Your task to perform on an android device: turn on translation in the chrome app Image 0: 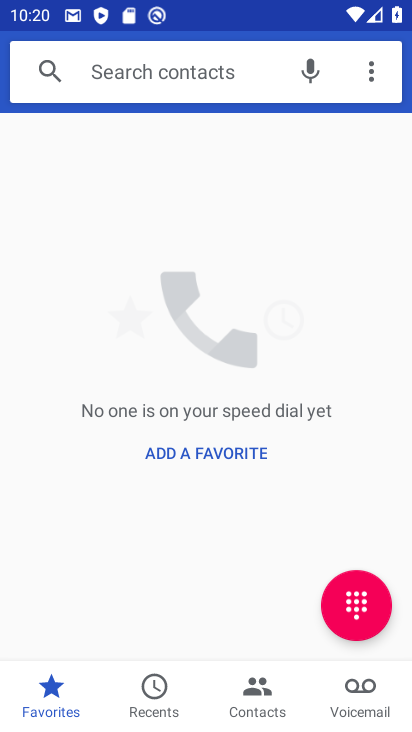
Step 0: press home button
Your task to perform on an android device: turn on translation in the chrome app Image 1: 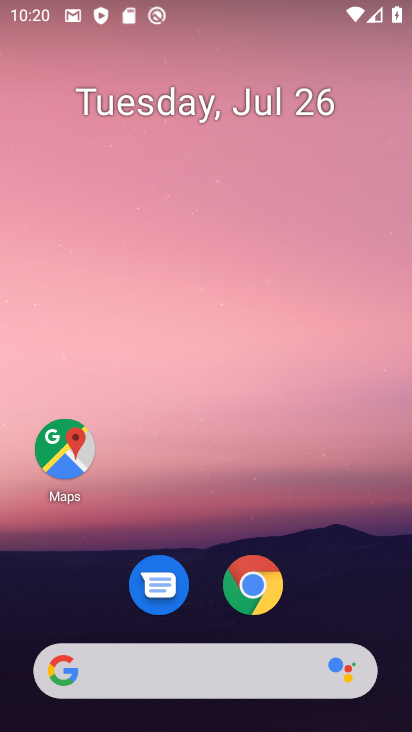
Step 1: click (229, 601)
Your task to perform on an android device: turn on translation in the chrome app Image 2: 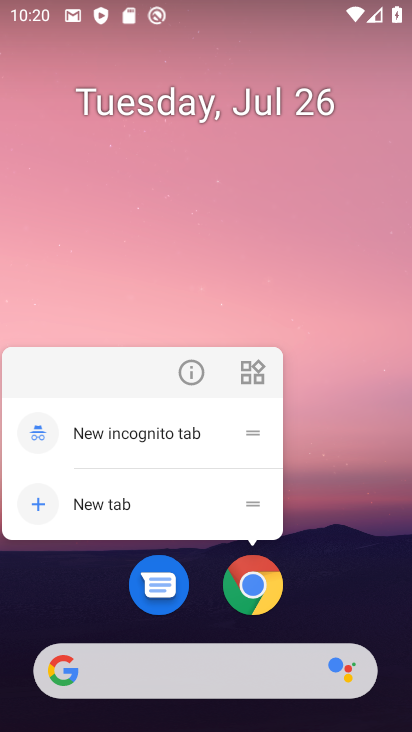
Step 2: click (248, 581)
Your task to perform on an android device: turn on translation in the chrome app Image 3: 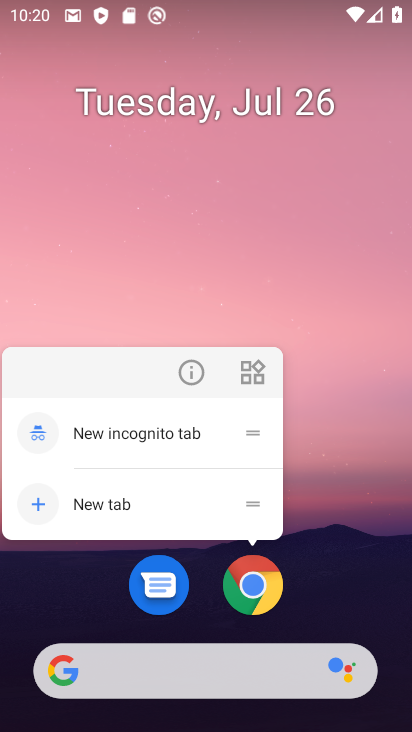
Step 3: click (249, 581)
Your task to perform on an android device: turn on translation in the chrome app Image 4: 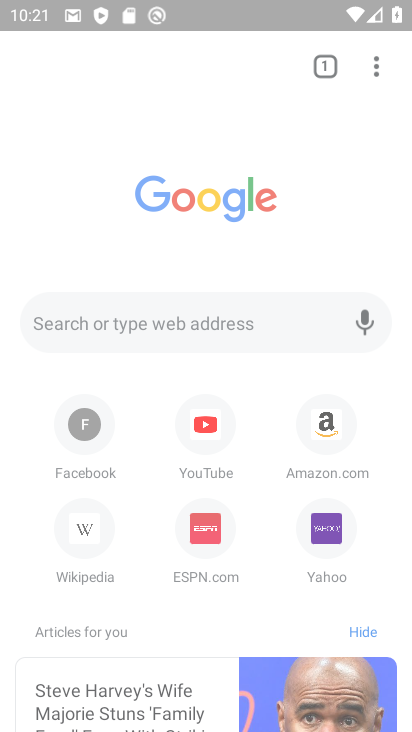
Step 4: click (256, 585)
Your task to perform on an android device: turn on translation in the chrome app Image 5: 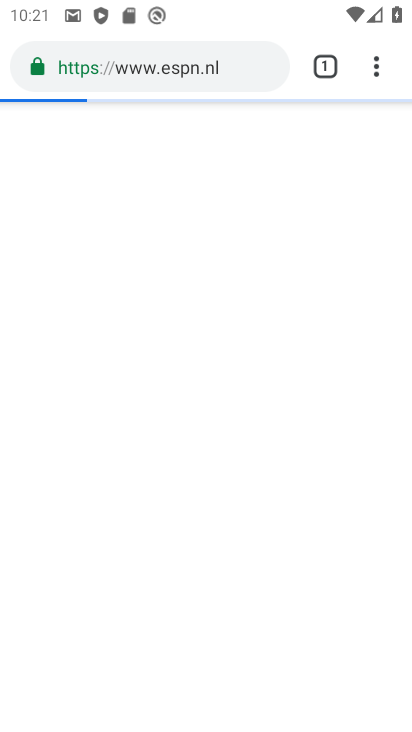
Step 5: click (379, 69)
Your task to perform on an android device: turn on translation in the chrome app Image 6: 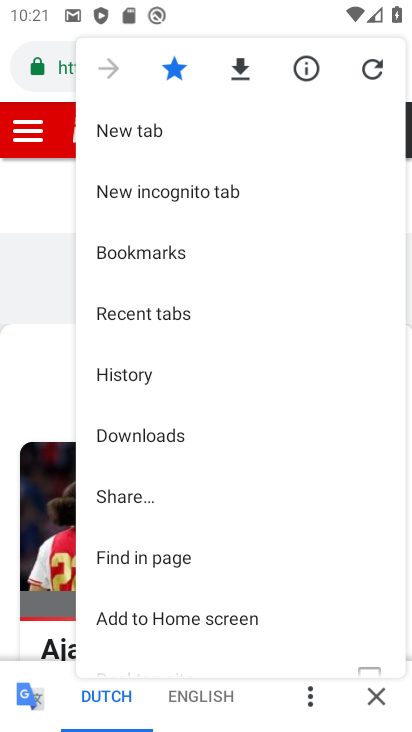
Step 6: drag from (338, 559) to (335, 333)
Your task to perform on an android device: turn on translation in the chrome app Image 7: 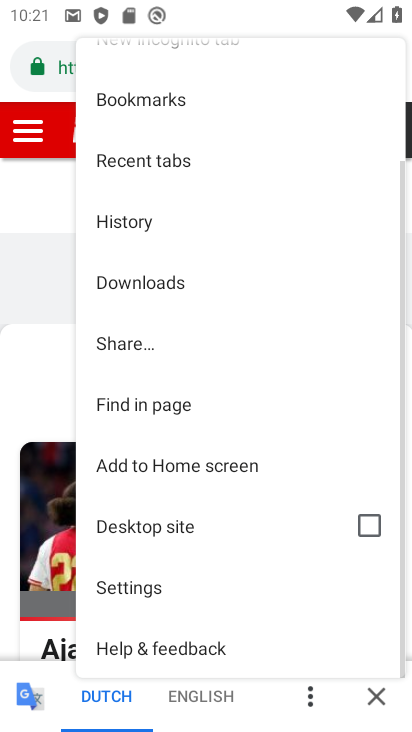
Step 7: click (138, 581)
Your task to perform on an android device: turn on translation in the chrome app Image 8: 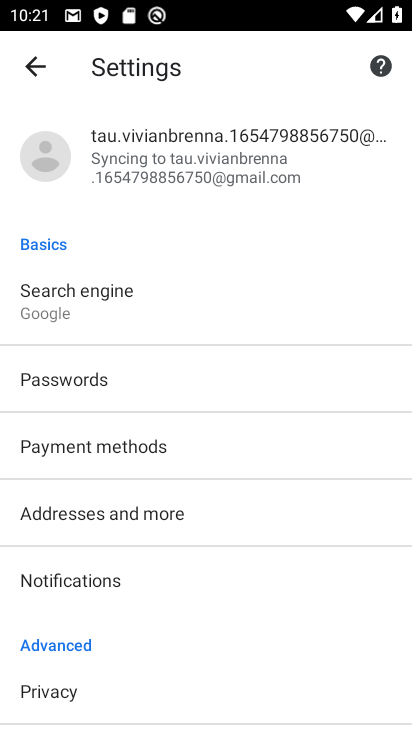
Step 8: drag from (351, 640) to (333, 359)
Your task to perform on an android device: turn on translation in the chrome app Image 9: 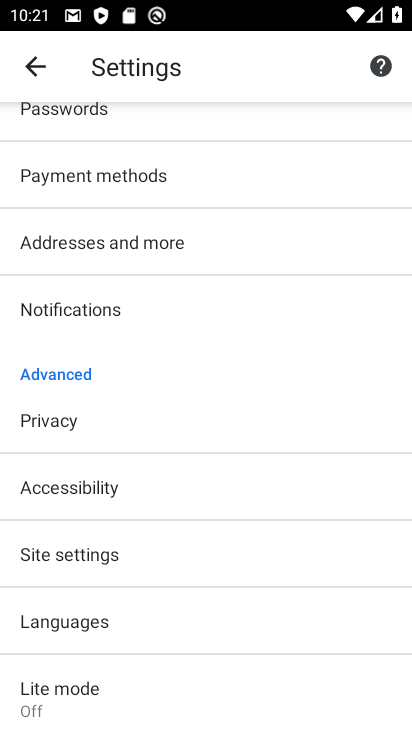
Step 9: click (263, 630)
Your task to perform on an android device: turn on translation in the chrome app Image 10: 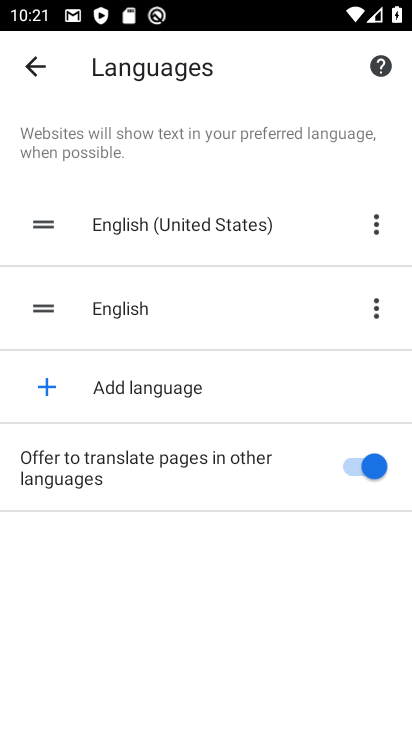
Step 10: click (354, 468)
Your task to perform on an android device: turn on translation in the chrome app Image 11: 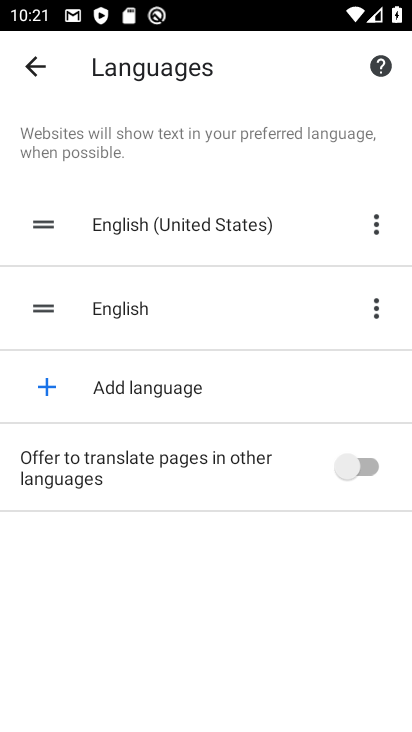
Step 11: click (356, 461)
Your task to perform on an android device: turn on translation in the chrome app Image 12: 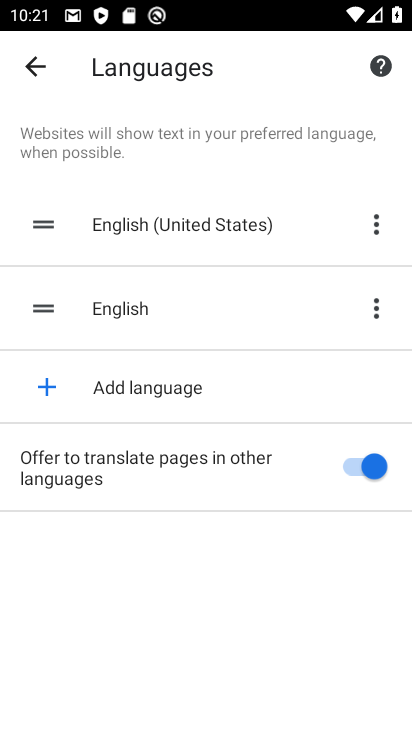
Step 12: task complete